Your task to perform on an android device: Open Chrome and go to settings Image 0: 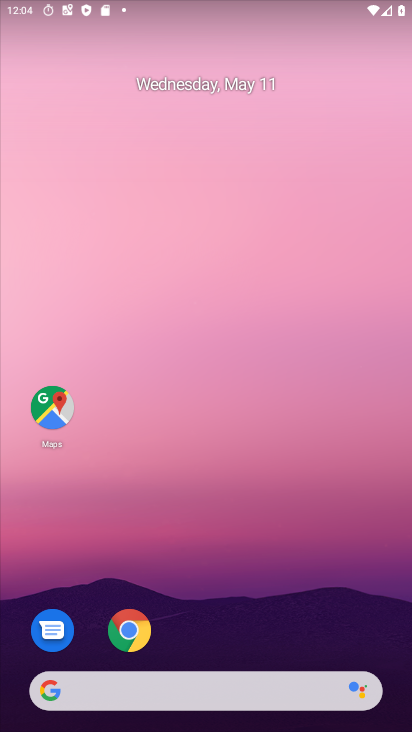
Step 0: drag from (321, 615) to (344, 116)
Your task to perform on an android device: Open Chrome and go to settings Image 1: 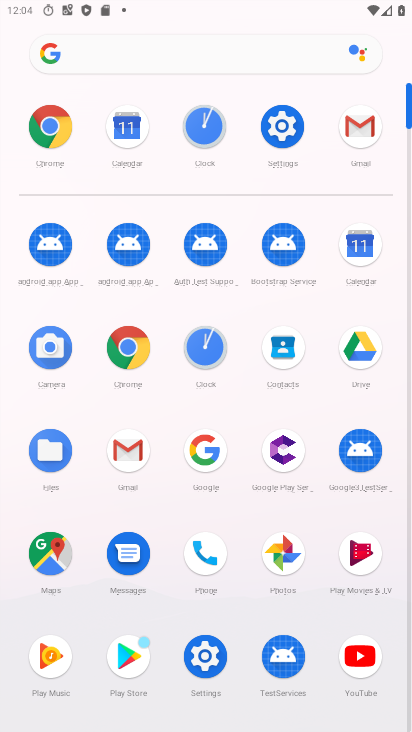
Step 1: click (130, 361)
Your task to perform on an android device: Open Chrome and go to settings Image 2: 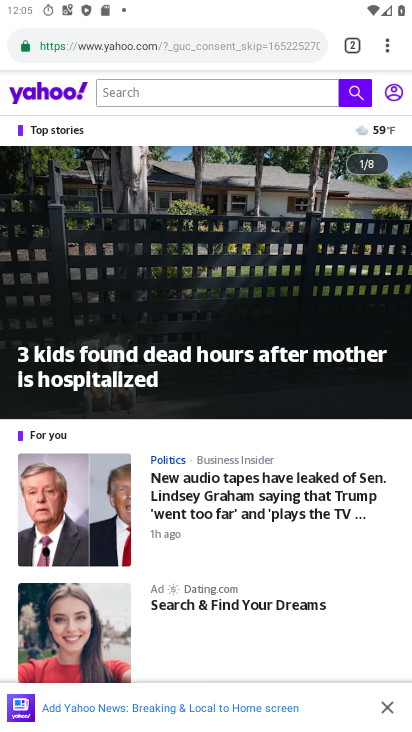
Step 2: click (386, 41)
Your task to perform on an android device: Open Chrome and go to settings Image 3: 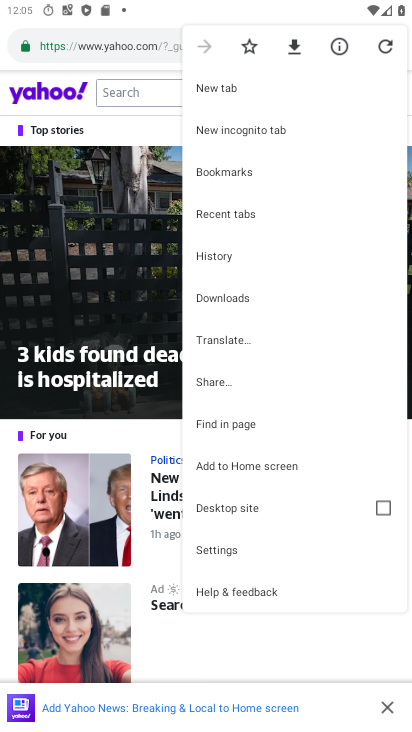
Step 3: click (248, 547)
Your task to perform on an android device: Open Chrome and go to settings Image 4: 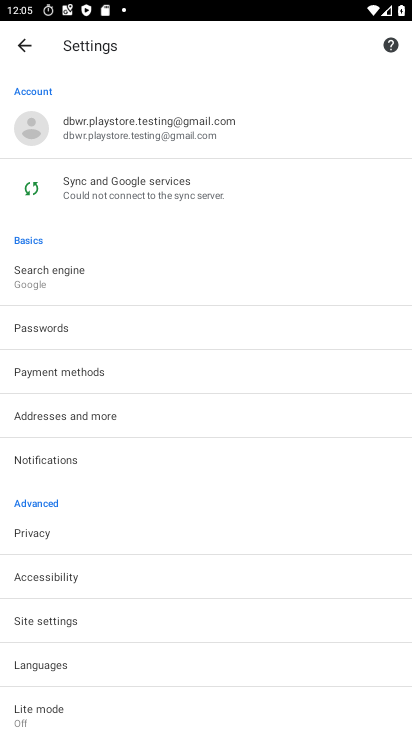
Step 4: task complete